Your task to perform on an android device: toggle pop-ups in chrome Image 0: 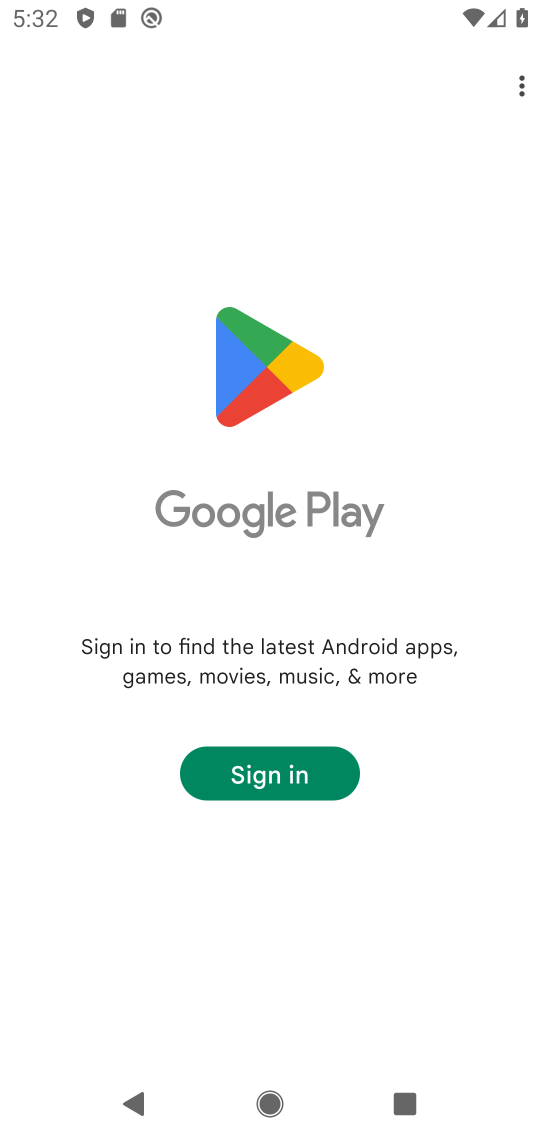
Step 0: press home button
Your task to perform on an android device: toggle pop-ups in chrome Image 1: 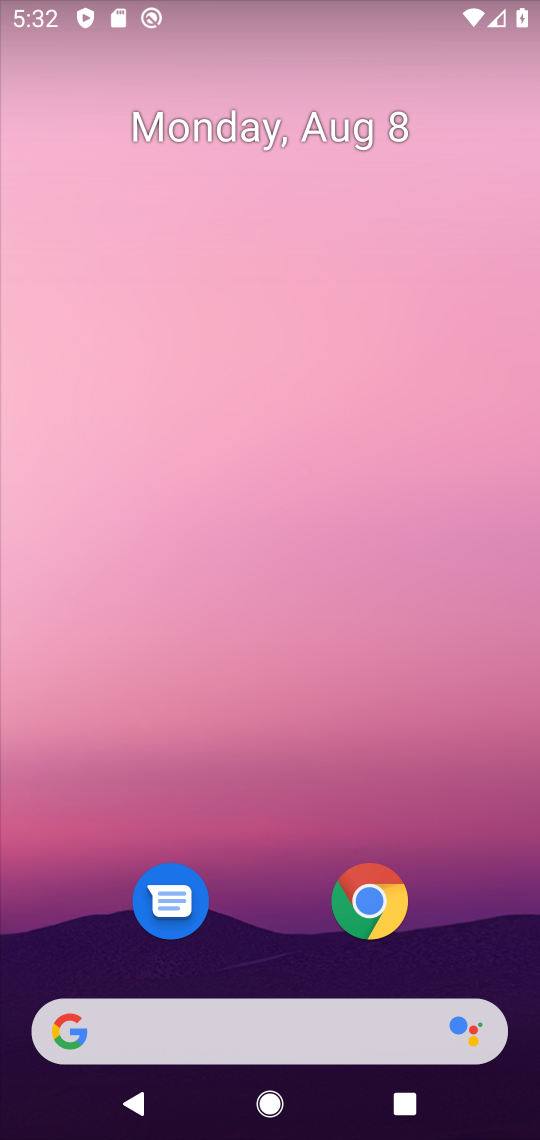
Step 1: click (342, 909)
Your task to perform on an android device: toggle pop-ups in chrome Image 2: 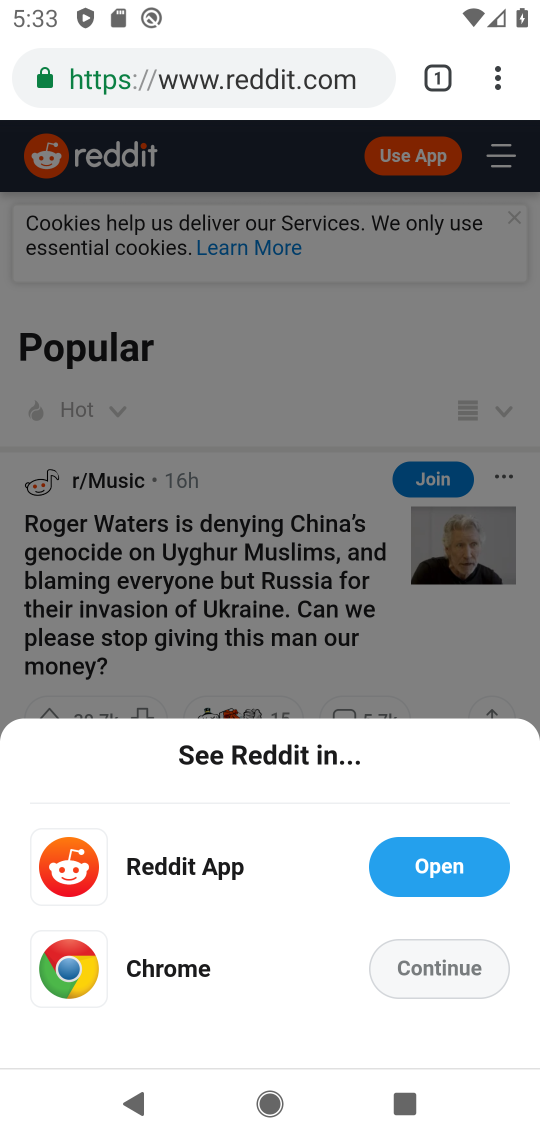
Step 2: click (517, 88)
Your task to perform on an android device: toggle pop-ups in chrome Image 3: 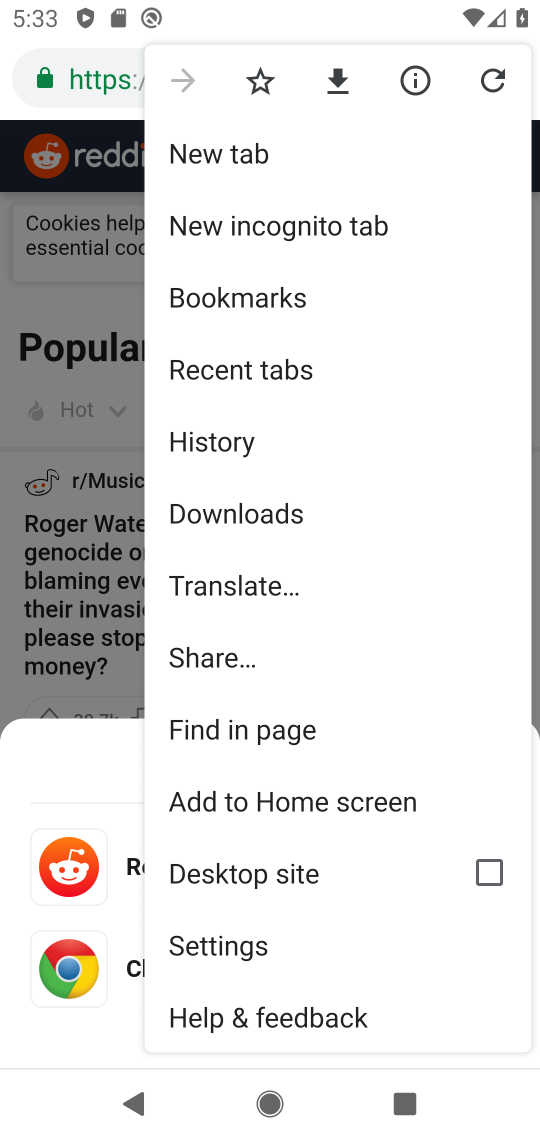
Step 3: click (286, 943)
Your task to perform on an android device: toggle pop-ups in chrome Image 4: 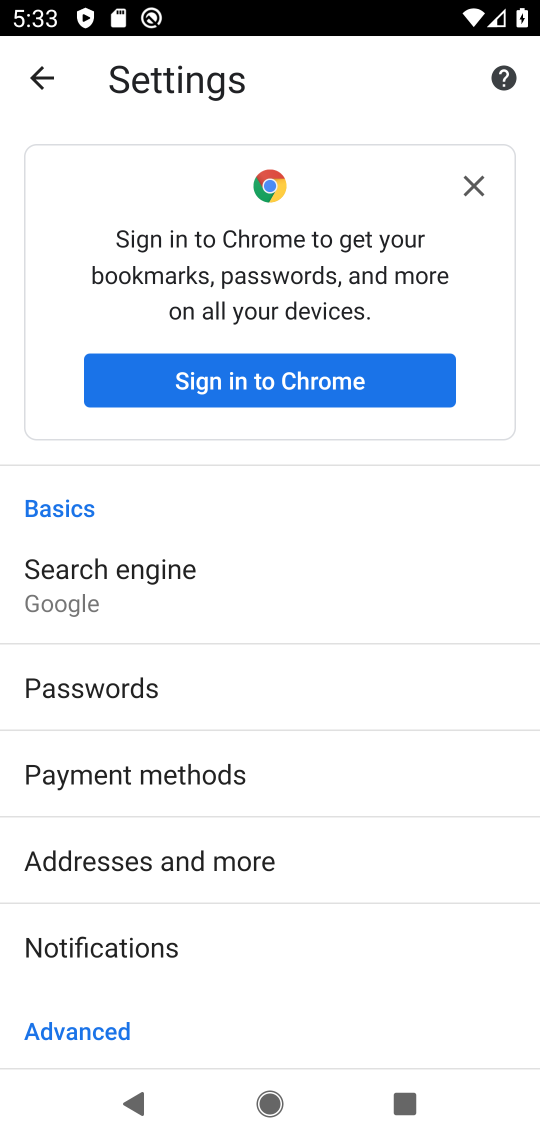
Step 4: drag from (345, 1011) to (219, 23)
Your task to perform on an android device: toggle pop-ups in chrome Image 5: 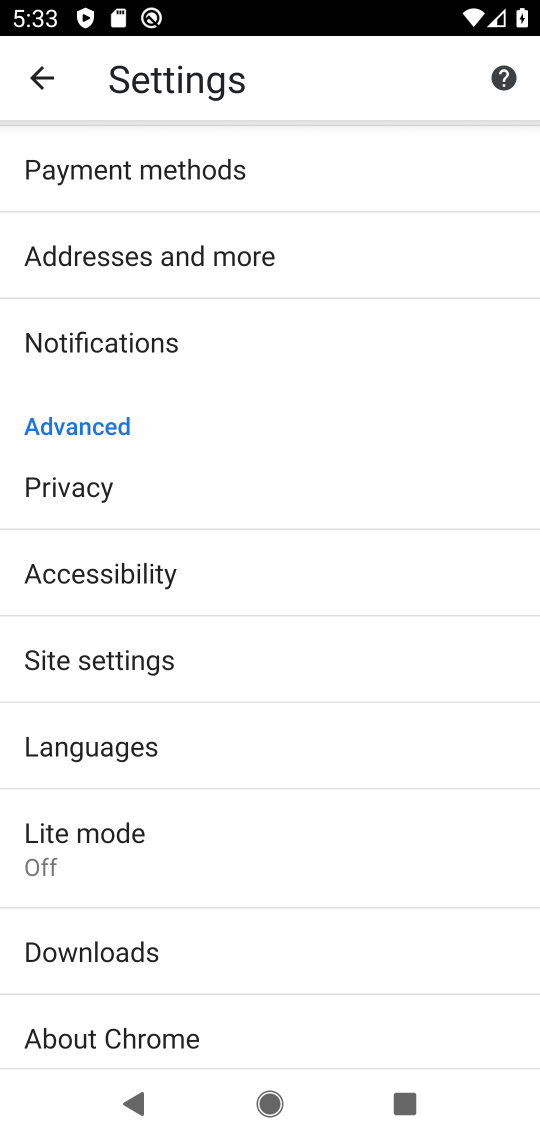
Step 5: click (229, 680)
Your task to perform on an android device: toggle pop-ups in chrome Image 6: 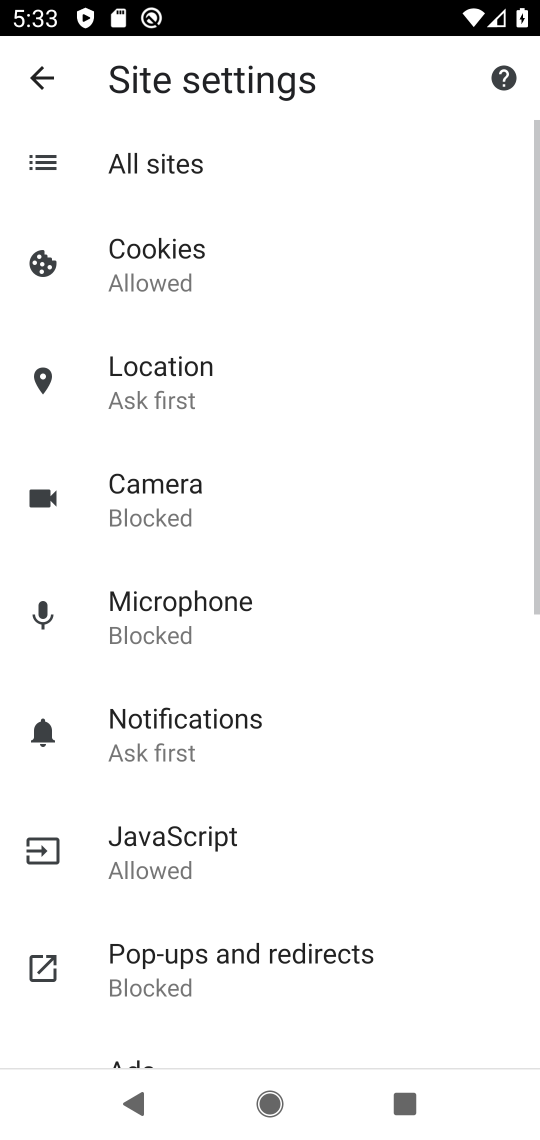
Step 6: drag from (231, 913) to (197, 583)
Your task to perform on an android device: toggle pop-ups in chrome Image 7: 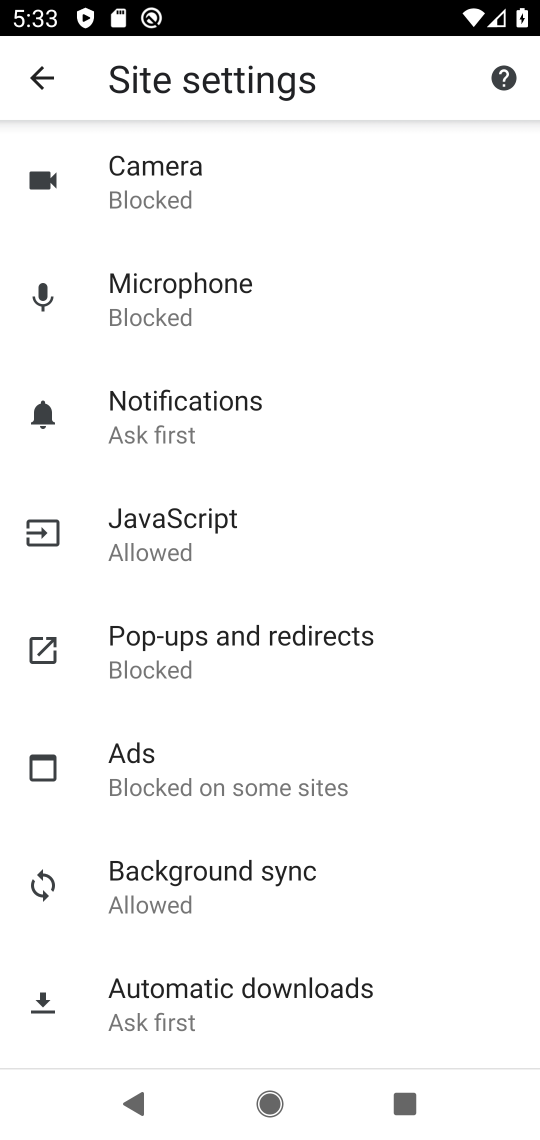
Step 7: click (264, 642)
Your task to perform on an android device: toggle pop-ups in chrome Image 8: 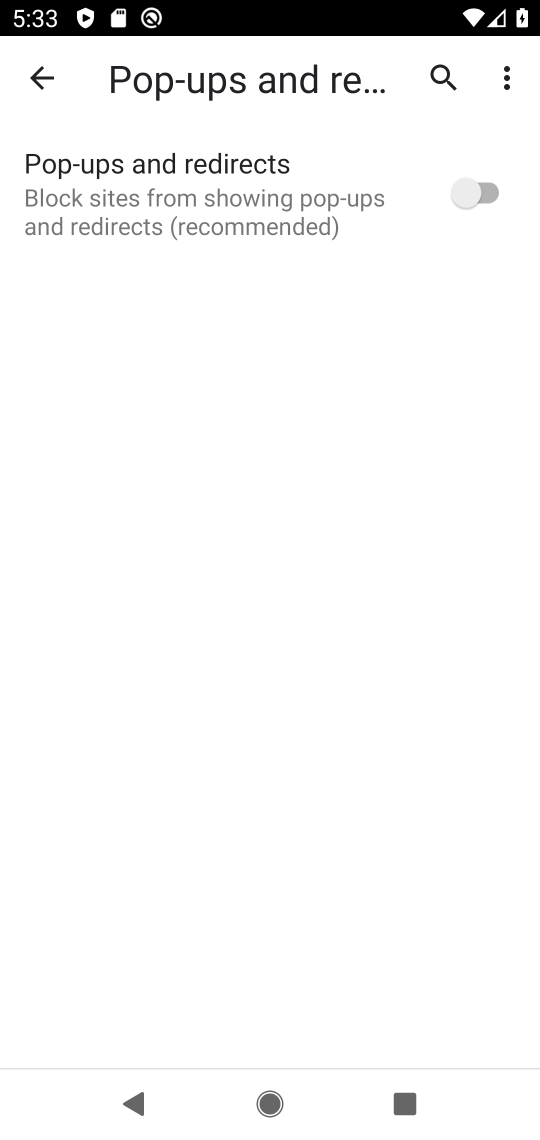
Step 8: click (482, 181)
Your task to perform on an android device: toggle pop-ups in chrome Image 9: 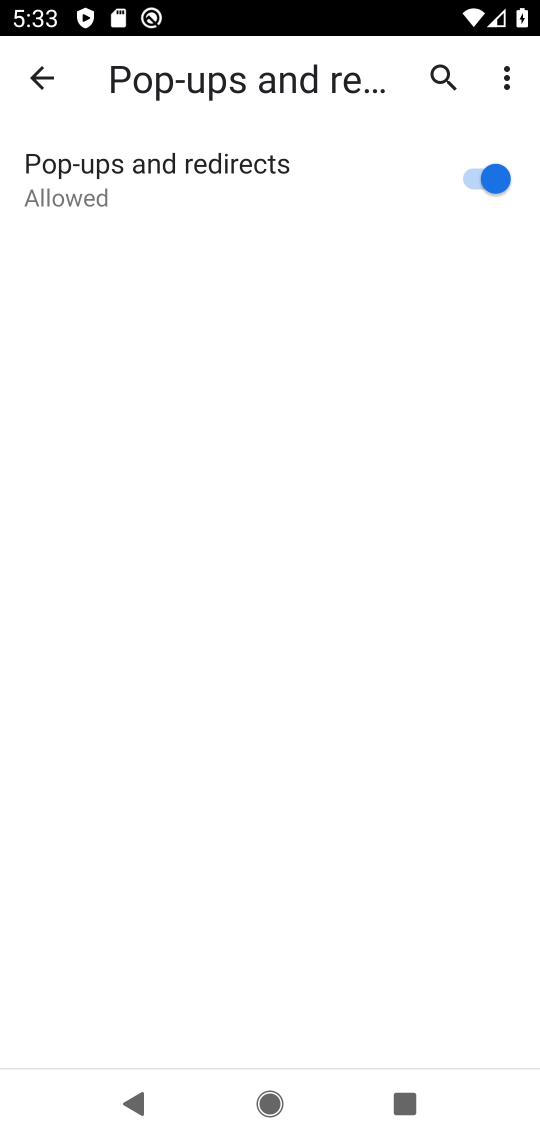
Step 9: task complete